Your task to perform on an android device: Open internet settings Image 0: 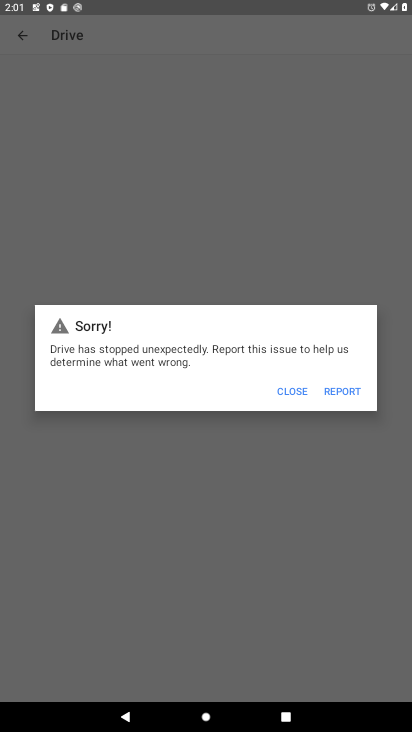
Step 0: press home button
Your task to perform on an android device: Open internet settings Image 1: 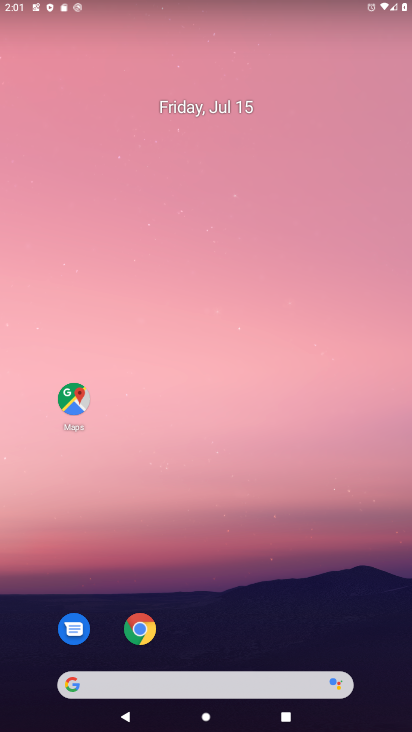
Step 1: drag from (263, 542) to (260, 92)
Your task to perform on an android device: Open internet settings Image 2: 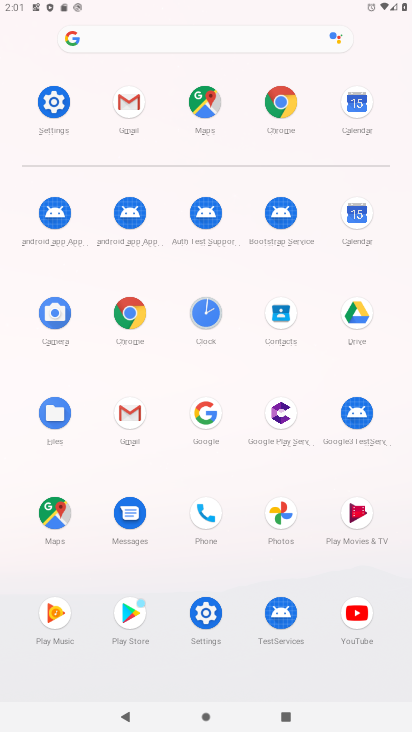
Step 2: click (50, 106)
Your task to perform on an android device: Open internet settings Image 3: 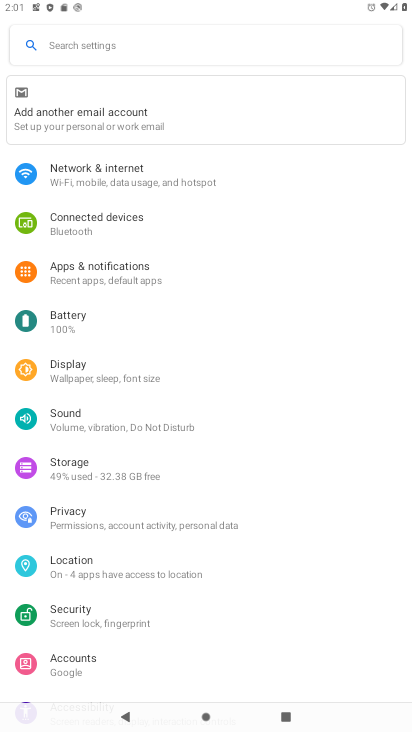
Step 3: click (71, 166)
Your task to perform on an android device: Open internet settings Image 4: 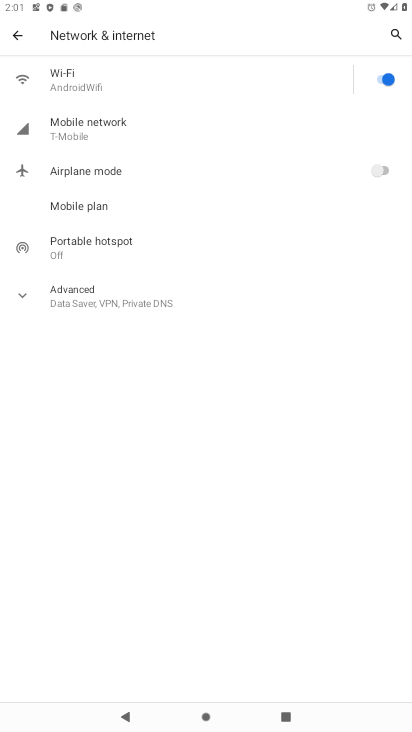
Step 4: click (128, 123)
Your task to perform on an android device: Open internet settings Image 5: 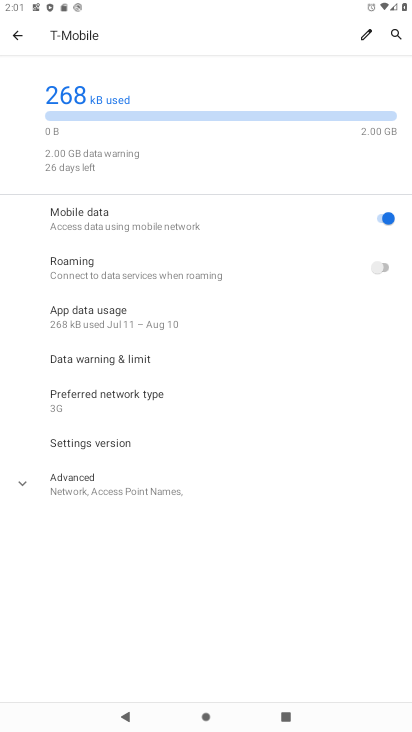
Step 5: click (18, 24)
Your task to perform on an android device: Open internet settings Image 6: 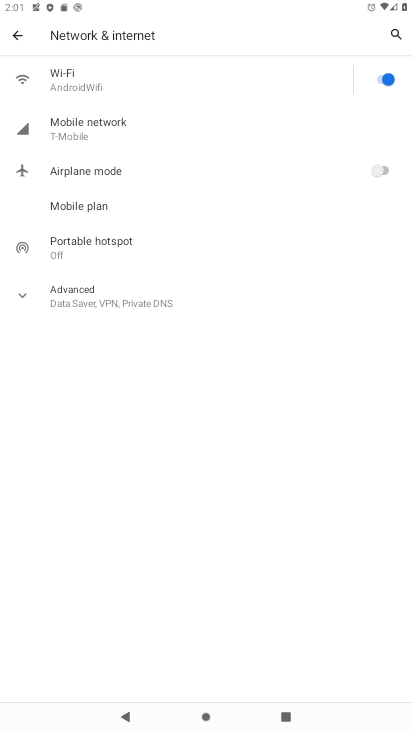
Step 6: click (73, 291)
Your task to perform on an android device: Open internet settings Image 7: 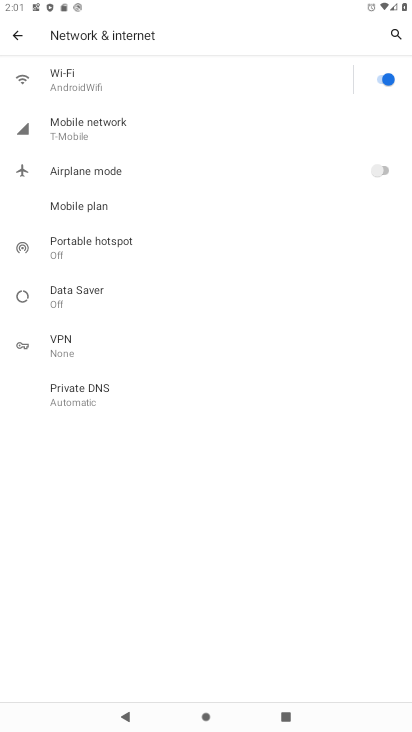
Step 7: task complete